Your task to perform on an android device: check storage Image 0: 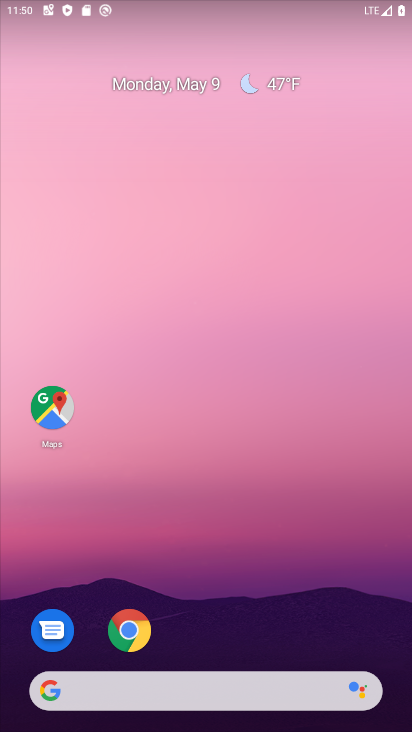
Step 0: drag from (153, 695) to (275, 105)
Your task to perform on an android device: check storage Image 1: 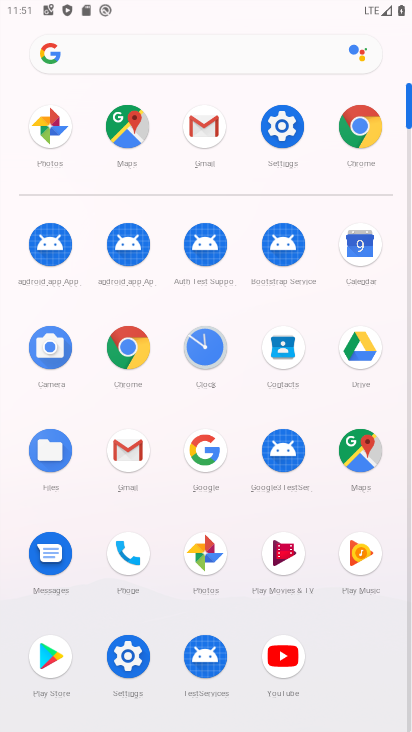
Step 1: click (281, 140)
Your task to perform on an android device: check storage Image 2: 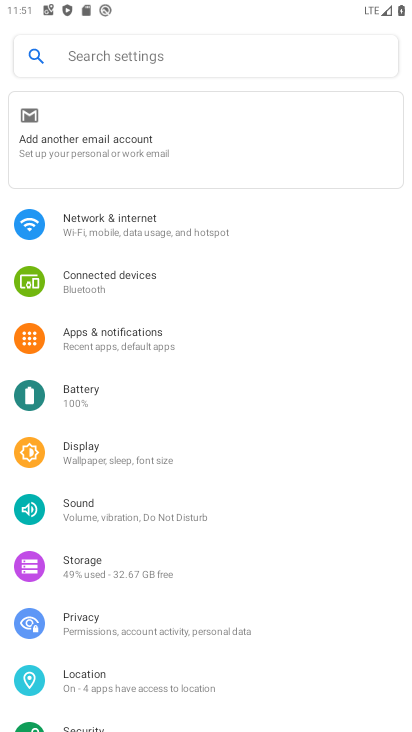
Step 2: click (113, 567)
Your task to perform on an android device: check storage Image 3: 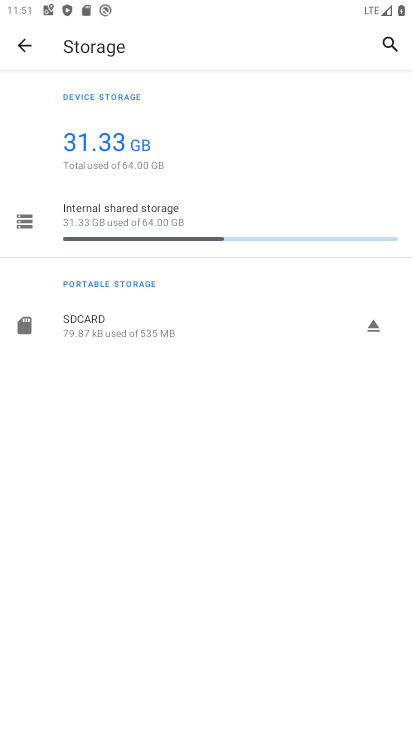
Step 3: task complete